Your task to perform on an android device: Open calendar and show me the first week of next month Image 0: 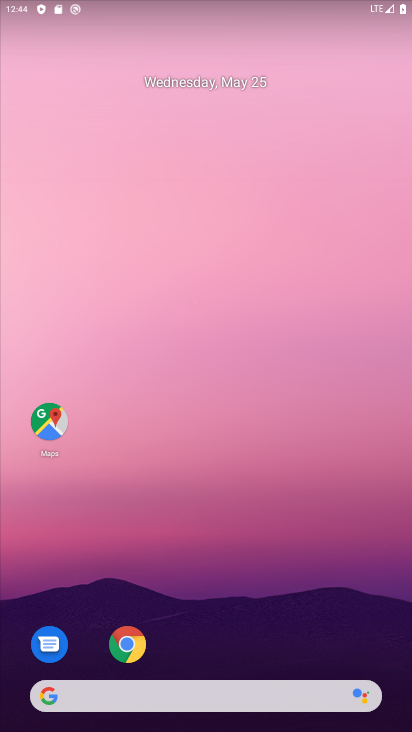
Step 0: drag from (273, 600) to (235, 40)
Your task to perform on an android device: Open calendar and show me the first week of next month Image 1: 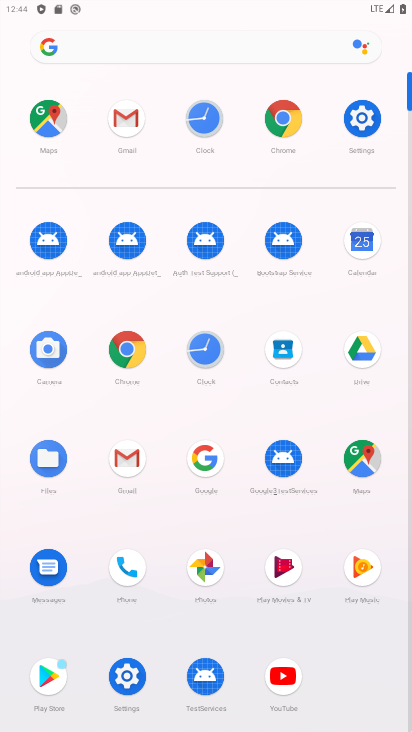
Step 1: click (356, 239)
Your task to perform on an android device: Open calendar and show me the first week of next month Image 2: 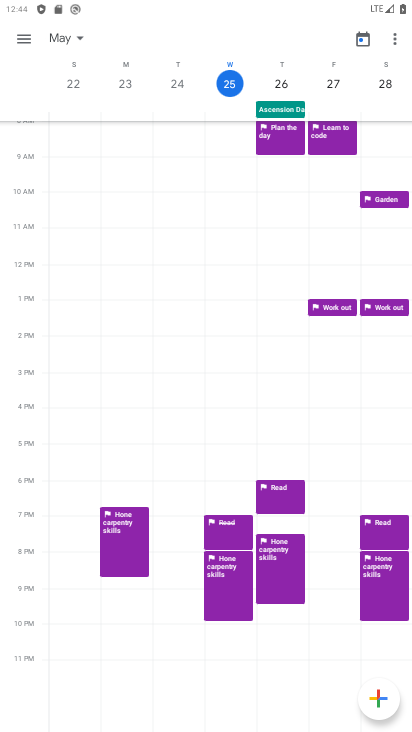
Step 2: click (76, 33)
Your task to perform on an android device: Open calendar and show me the first week of next month Image 3: 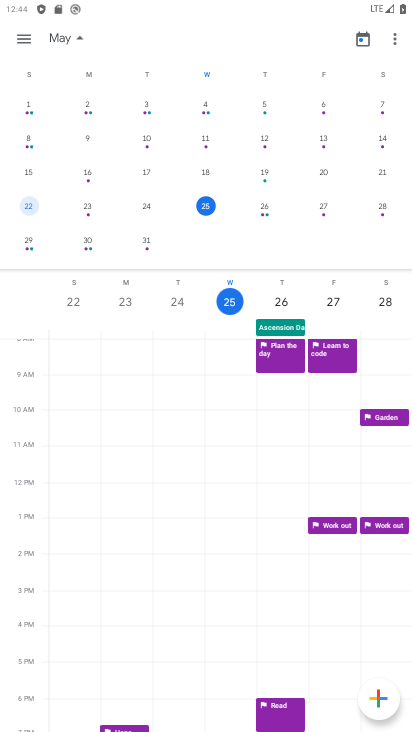
Step 3: drag from (325, 125) to (12, 103)
Your task to perform on an android device: Open calendar and show me the first week of next month Image 4: 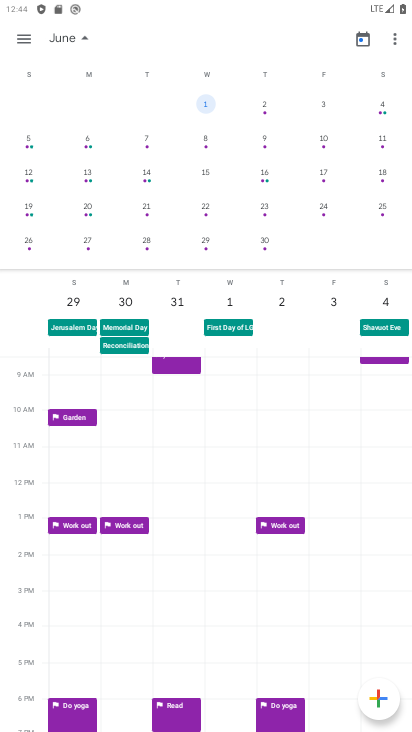
Step 4: click (208, 101)
Your task to perform on an android device: Open calendar and show me the first week of next month Image 5: 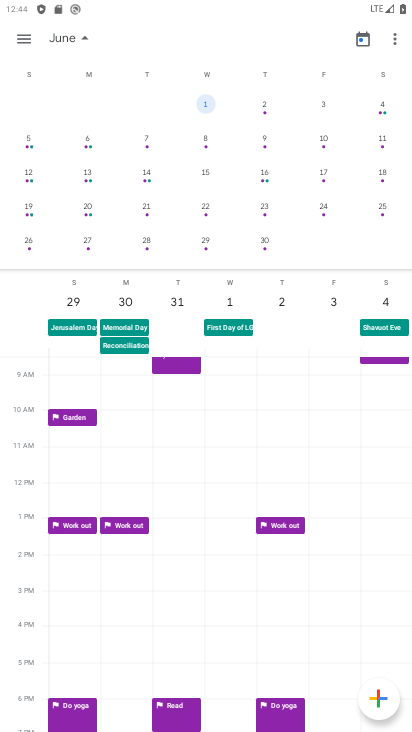
Step 5: task complete